Your task to perform on an android device: empty trash in the gmail app Image 0: 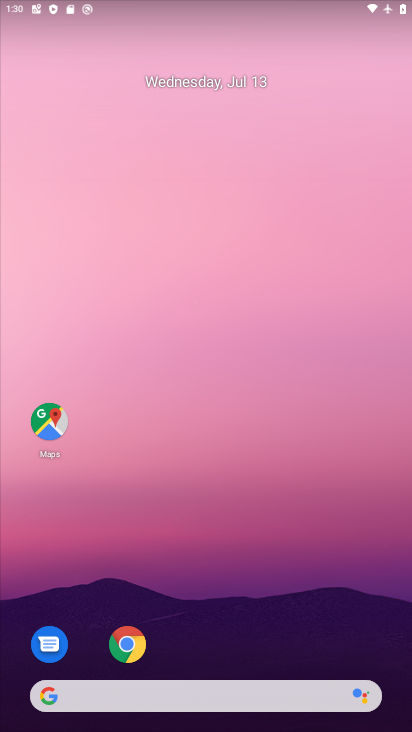
Step 0: drag from (220, 336) to (199, 0)
Your task to perform on an android device: empty trash in the gmail app Image 1: 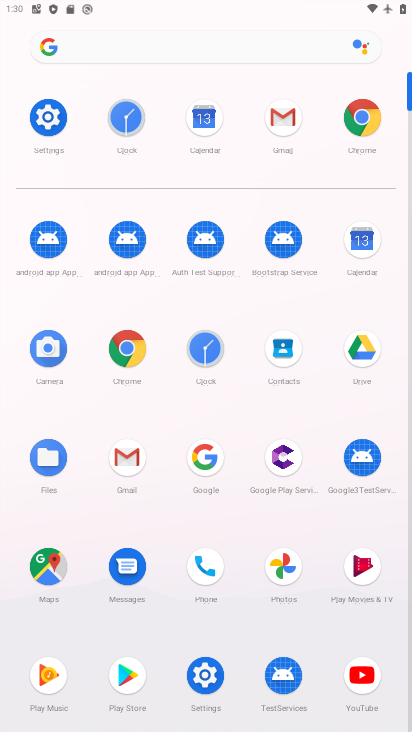
Step 1: click (294, 119)
Your task to perform on an android device: empty trash in the gmail app Image 2: 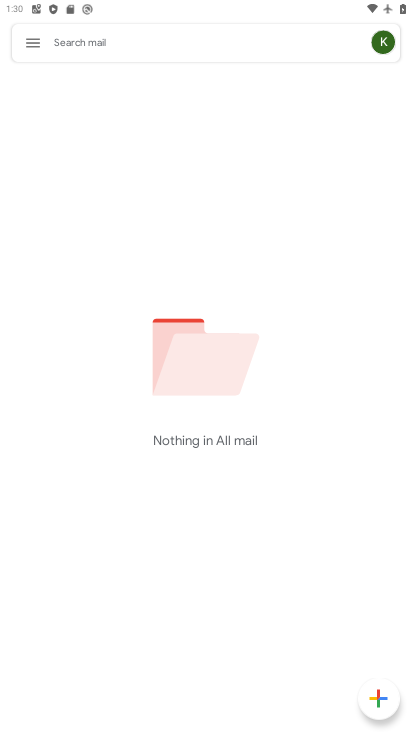
Step 2: click (35, 42)
Your task to perform on an android device: empty trash in the gmail app Image 3: 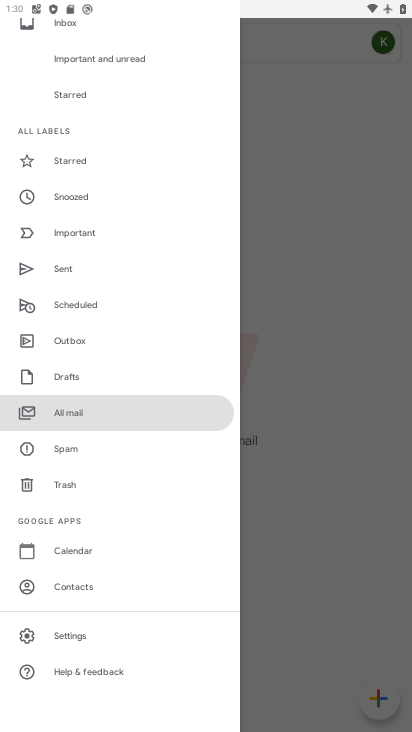
Step 3: click (76, 486)
Your task to perform on an android device: empty trash in the gmail app Image 4: 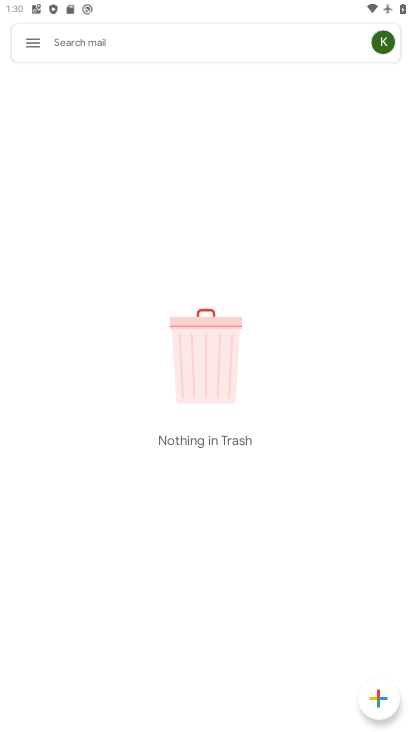
Step 4: task complete